Your task to perform on an android device: Open Youtube and go to the subscriptions tab Image 0: 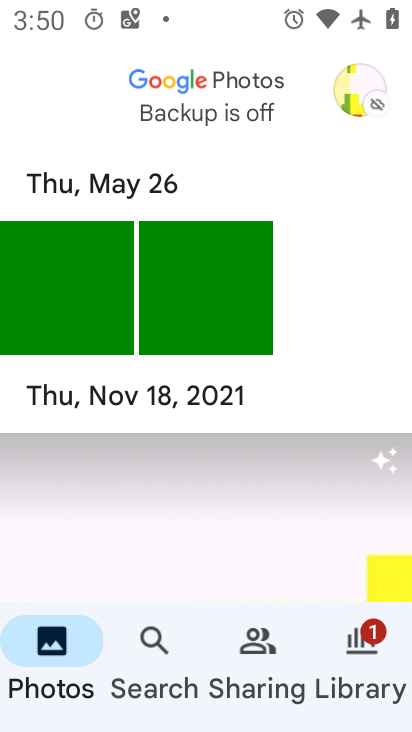
Step 0: press home button
Your task to perform on an android device: Open Youtube and go to the subscriptions tab Image 1: 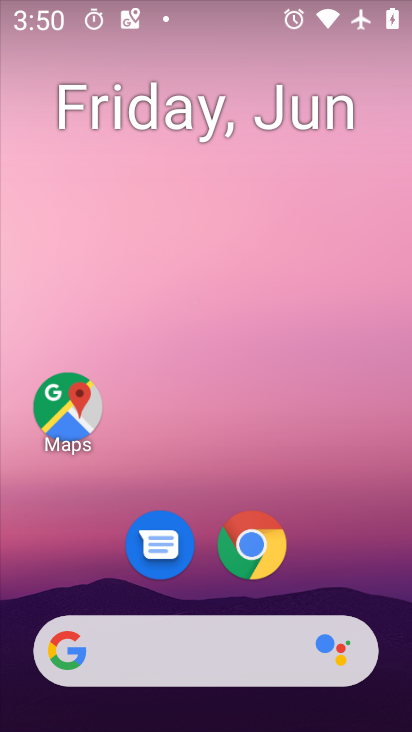
Step 1: drag from (326, 577) to (338, 32)
Your task to perform on an android device: Open Youtube and go to the subscriptions tab Image 2: 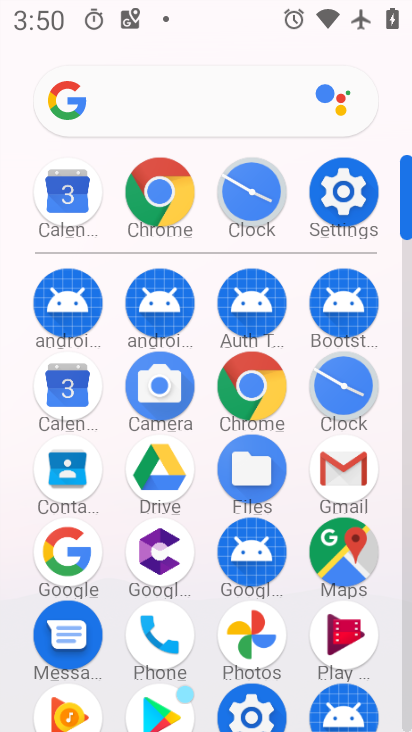
Step 2: drag from (179, 492) to (186, 144)
Your task to perform on an android device: Open Youtube and go to the subscriptions tab Image 3: 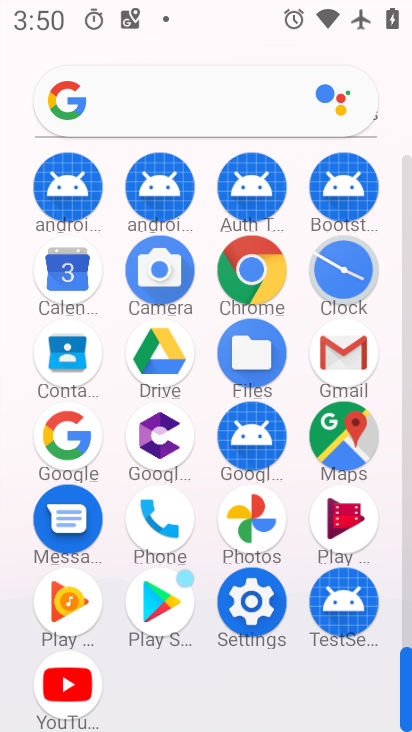
Step 3: click (73, 688)
Your task to perform on an android device: Open Youtube and go to the subscriptions tab Image 4: 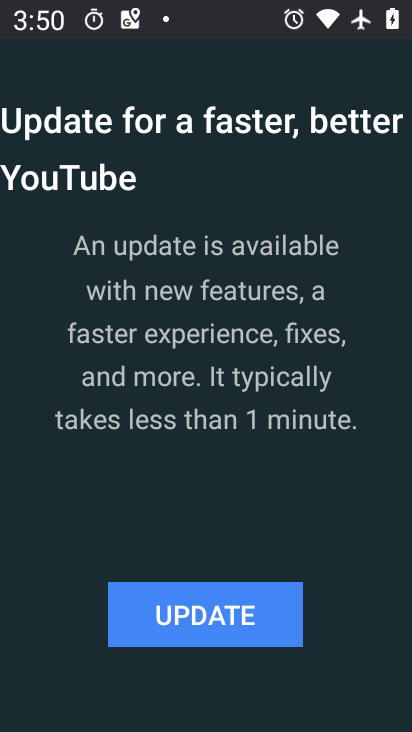
Step 4: click (209, 625)
Your task to perform on an android device: Open Youtube and go to the subscriptions tab Image 5: 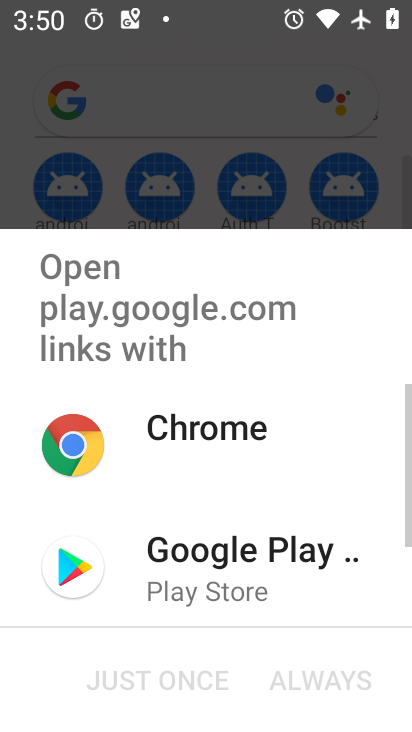
Step 5: click (198, 571)
Your task to perform on an android device: Open Youtube and go to the subscriptions tab Image 6: 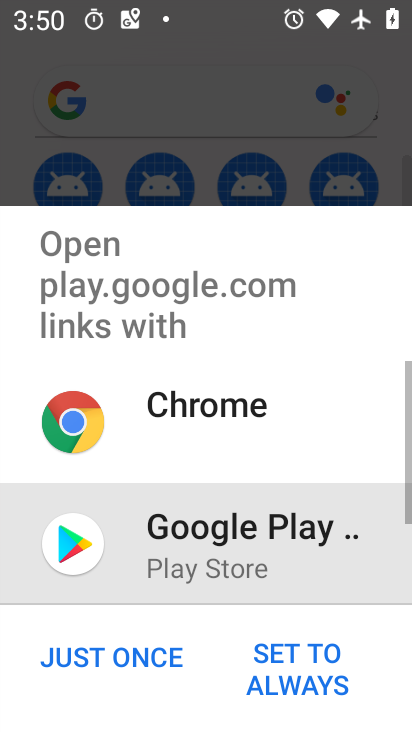
Step 6: click (76, 659)
Your task to perform on an android device: Open Youtube and go to the subscriptions tab Image 7: 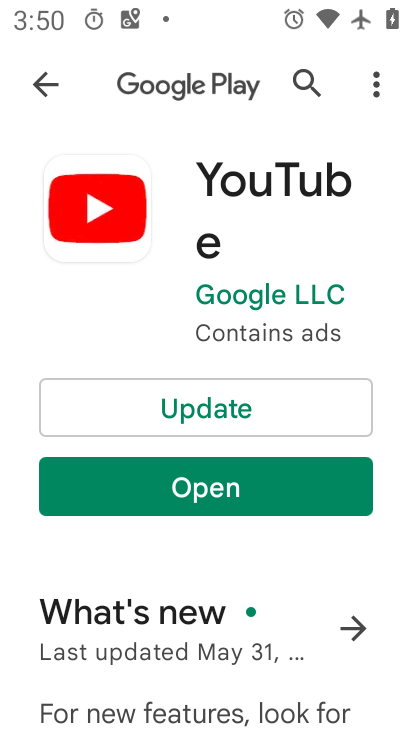
Step 7: click (212, 403)
Your task to perform on an android device: Open Youtube and go to the subscriptions tab Image 8: 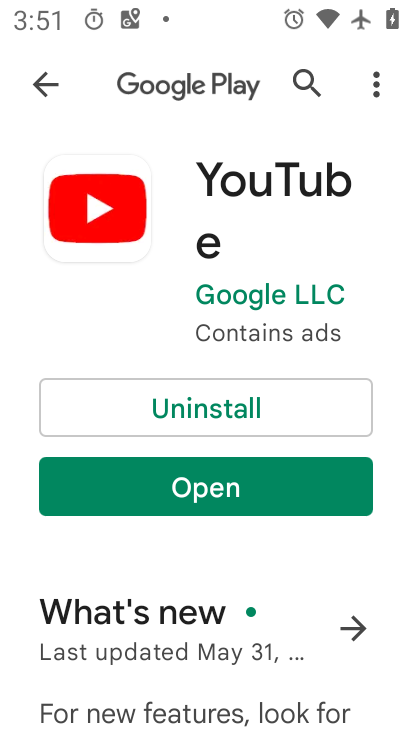
Step 8: click (188, 490)
Your task to perform on an android device: Open Youtube and go to the subscriptions tab Image 9: 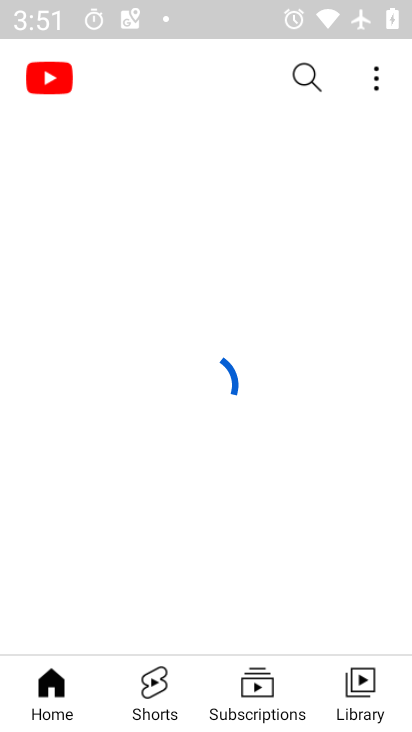
Step 9: click (277, 688)
Your task to perform on an android device: Open Youtube and go to the subscriptions tab Image 10: 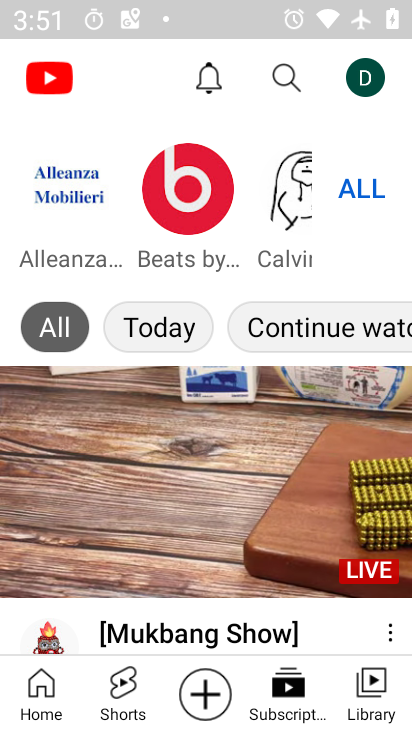
Step 10: task complete